Your task to perform on an android device: turn pop-ups on in chrome Image 0: 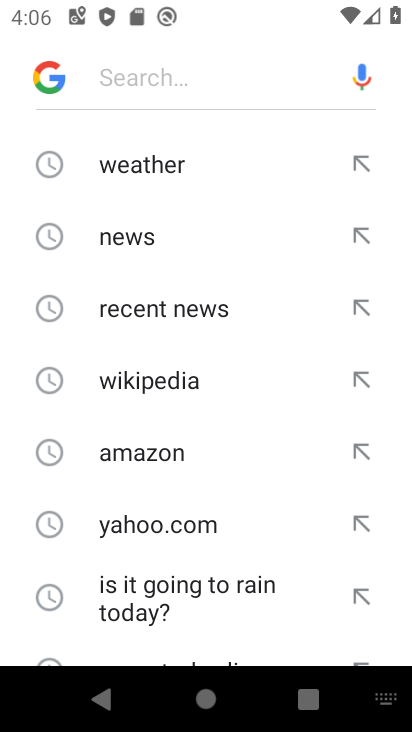
Step 0: press home button
Your task to perform on an android device: turn pop-ups on in chrome Image 1: 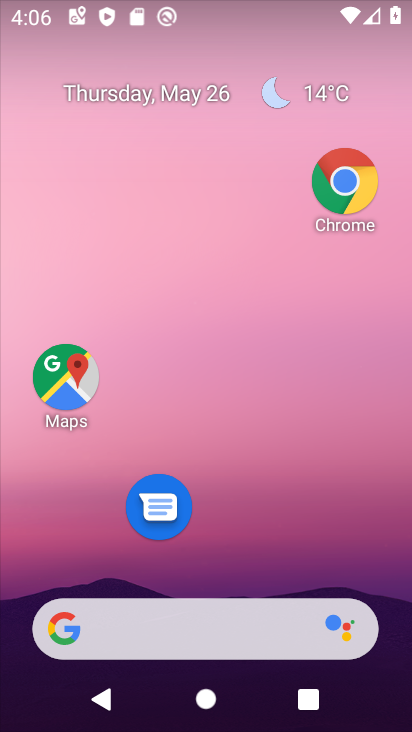
Step 1: click (343, 179)
Your task to perform on an android device: turn pop-ups on in chrome Image 2: 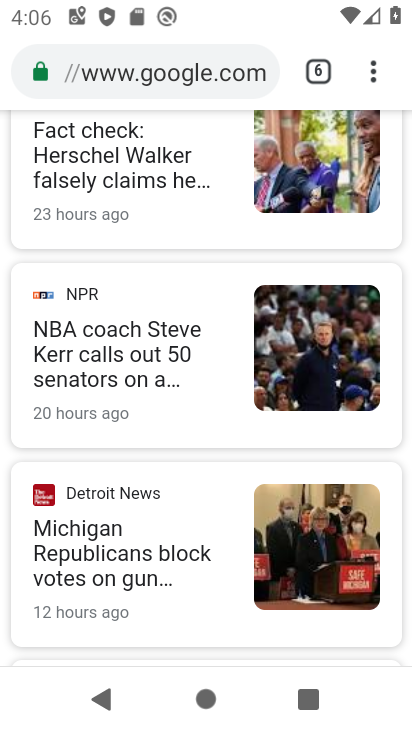
Step 2: drag from (366, 75) to (176, 517)
Your task to perform on an android device: turn pop-ups on in chrome Image 3: 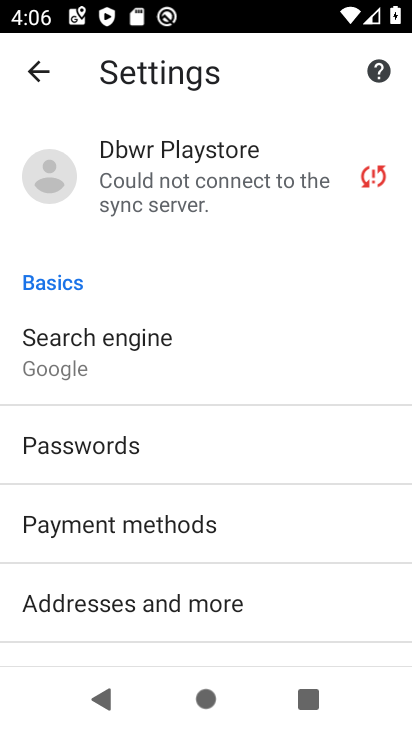
Step 3: drag from (272, 608) to (331, 302)
Your task to perform on an android device: turn pop-ups on in chrome Image 4: 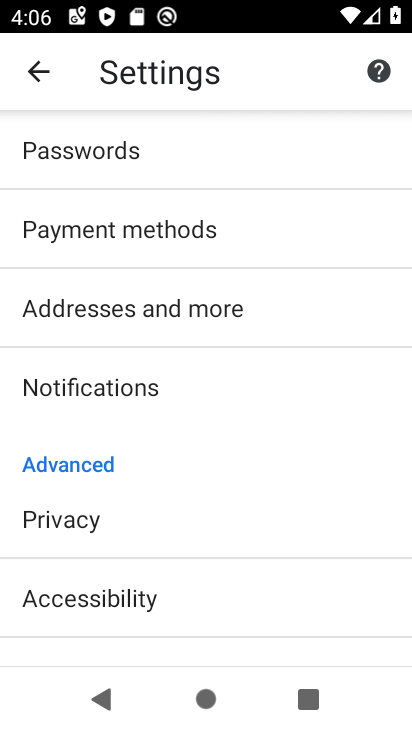
Step 4: drag from (259, 593) to (294, 344)
Your task to perform on an android device: turn pop-ups on in chrome Image 5: 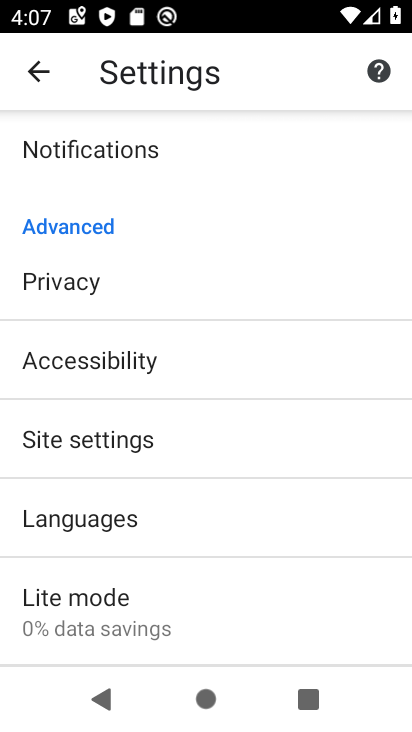
Step 5: click (111, 438)
Your task to perform on an android device: turn pop-ups on in chrome Image 6: 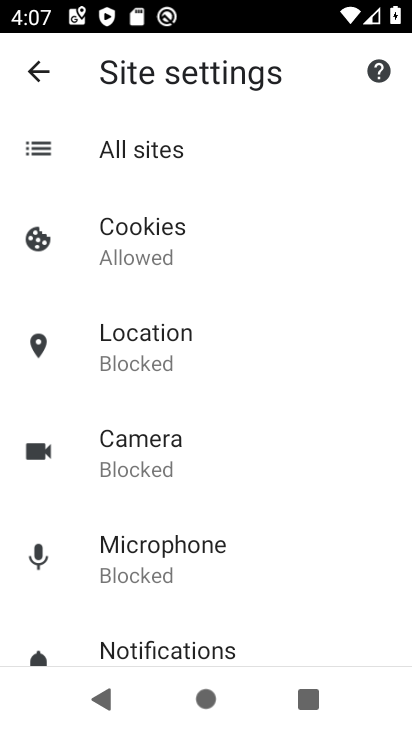
Step 6: drag from (260, 594) to (286, 291)
Your task to perform on an android device: turn pop-ups on in chrome Image 7: 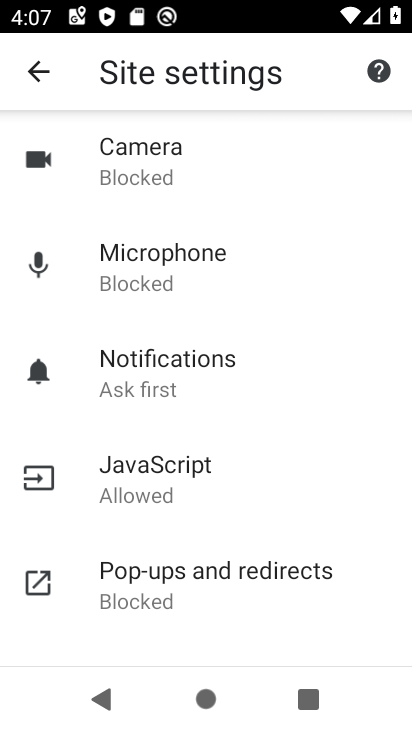
Step 7: click (206, 571)
Your task to perform on an android device: turn pop-ups on in chrome Image 8: 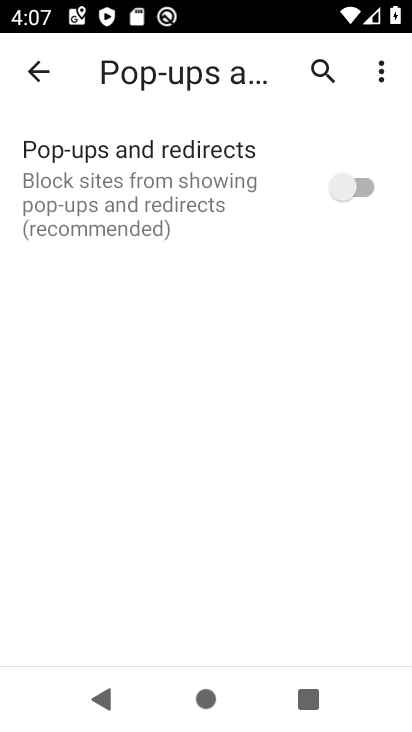
Step 8: click (347, 185)
Your task to perform on an android device: turn pop-ups on in chrome Image 9: 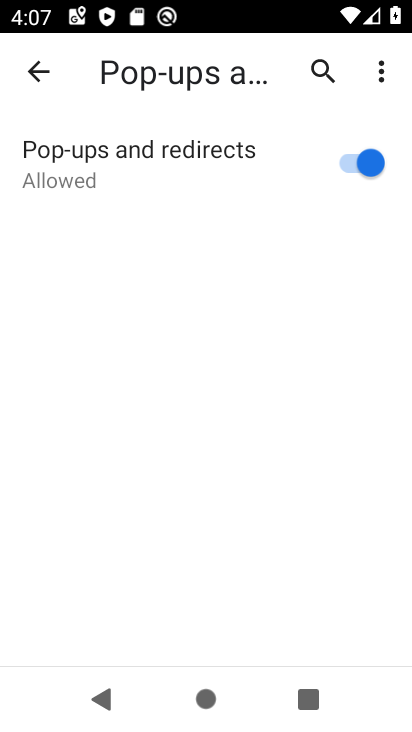
Step 9: task complete